Your task to perform on an android device: Search for vegetarian restaurants on Maps Image 0: 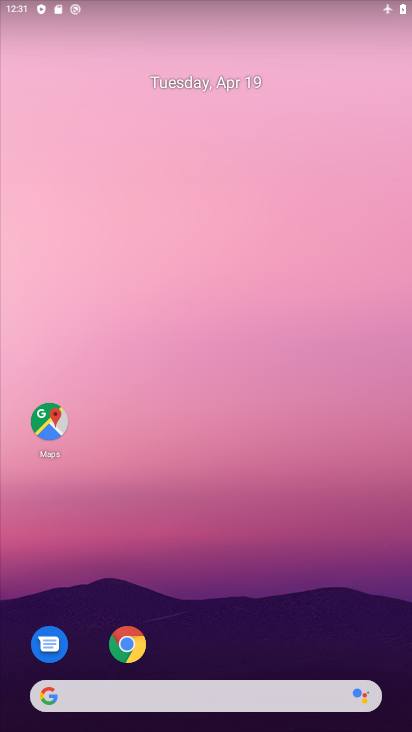
Step 0: click (46, 438)
Your task to perform on an android device: Search for vegetarian restaurants on Maps Image 1: 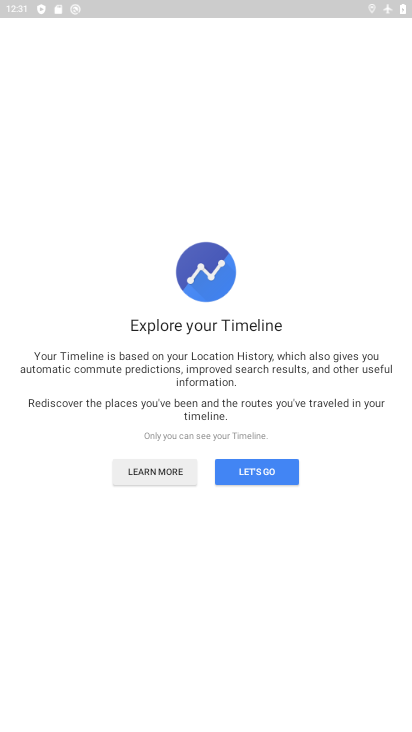
Step 1: click (267, 472)
Your task to perform on an android device: Search for vegetarian restaurants on Maps Image 2: 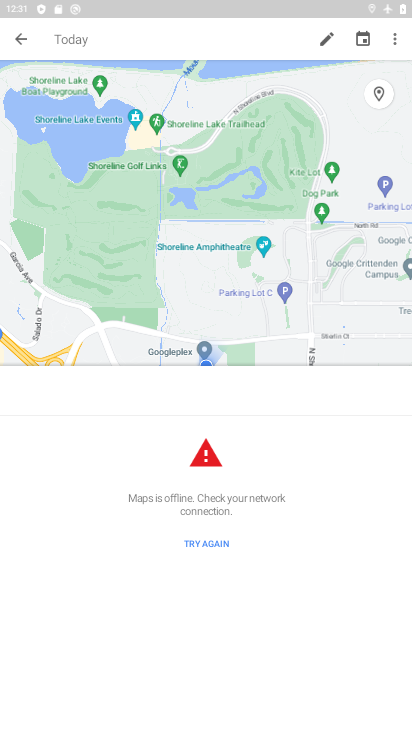
Step 2: click (14, 40)
Your task to perform on an android device: Search for vegetarian restaurants on Maps Image 3: 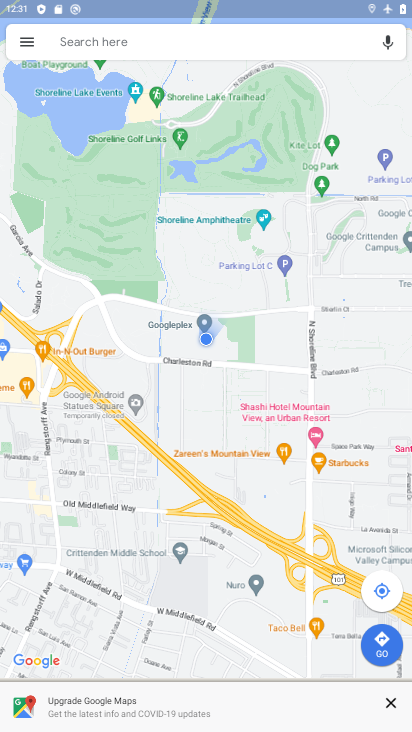
Step 3: click (124, 39)
Your task to perform on an android device: Search for vegetarian restaurants on Maps Image 4: 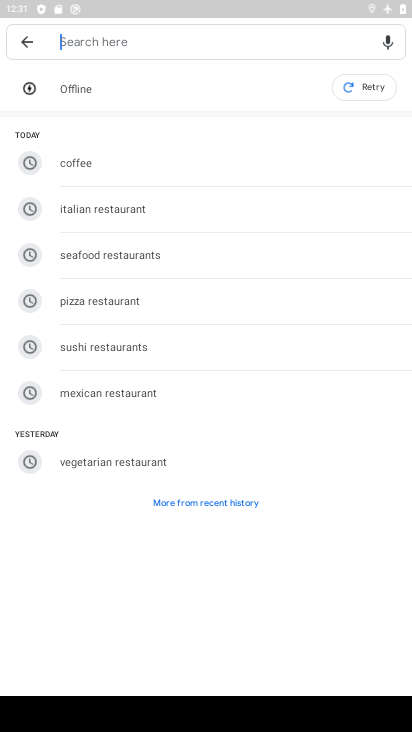
Step 4: type "vegetarian"
Your task to perform on an android device: Search for vegetarian restaurants on Maps Image 5: 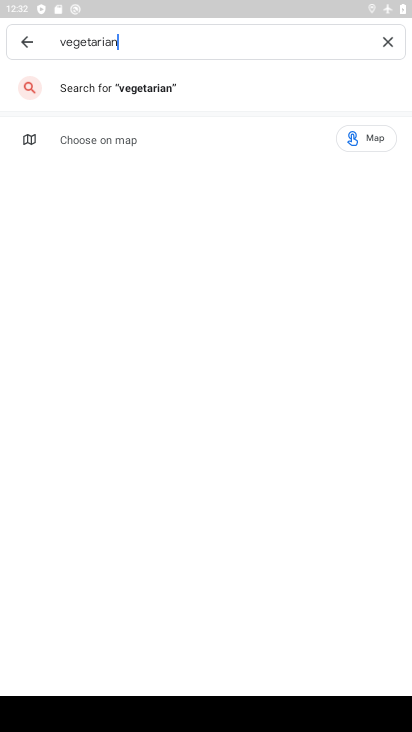
Step 5: click (160, 100)
Your task to perform on an android device: Search for vegetarian restaurants on Maps Image 6: 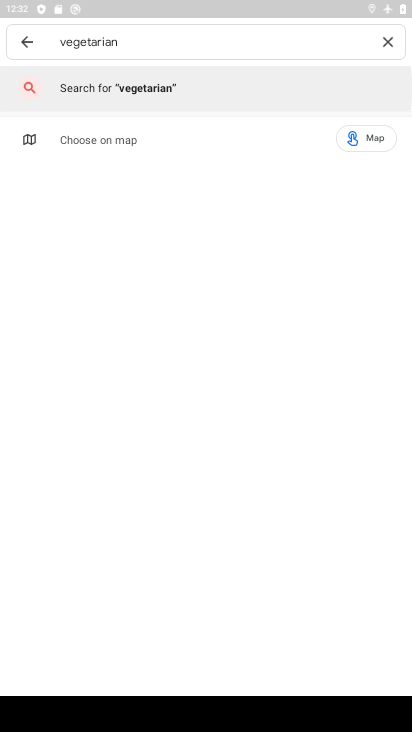
Step 6: click (160, 93)
Your task to perform on an android device: Search for vegetarian restaurants on Maps Image 7: 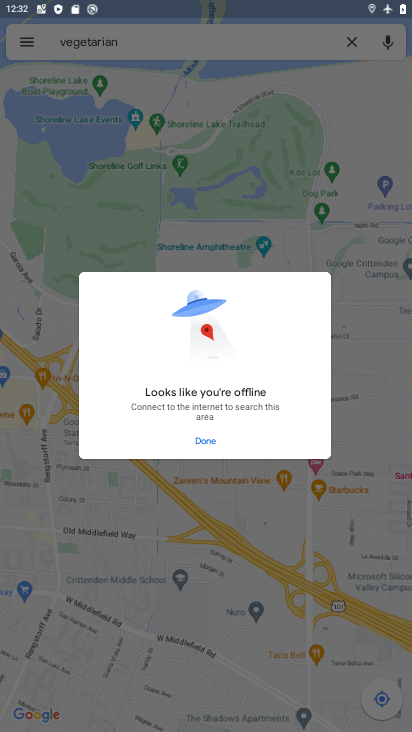
Step 7: click (160, 93)
Your task to perform on an android device: Search for vegetarian restaurants on Maps Image 8: 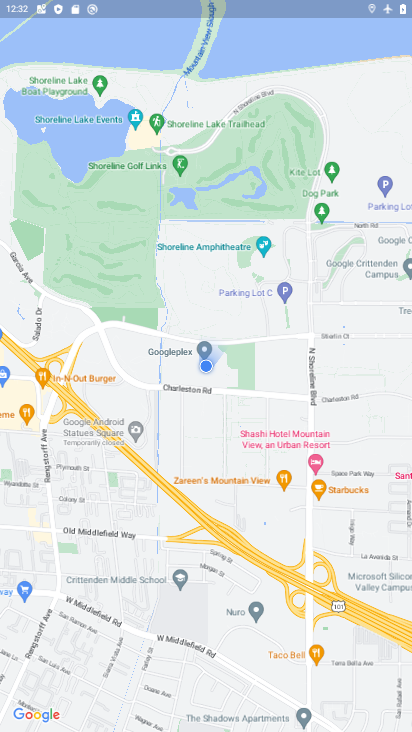
Step 8: task complete